Your task to perform on an android device: Open the stopwatch Image 0: 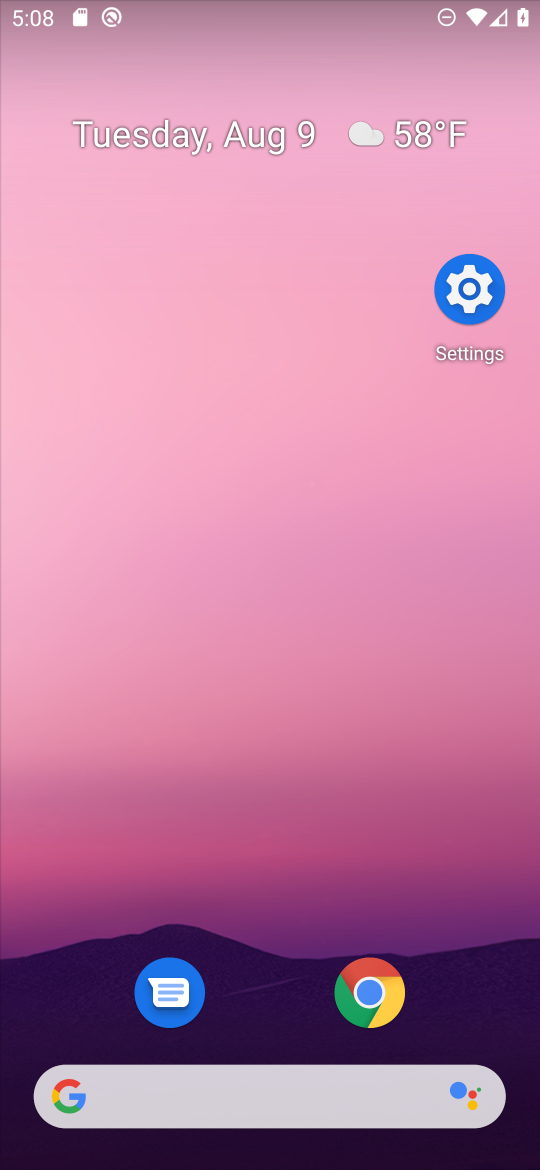
Step 0: drag from (323, 1104) to (347, 98)
Your task to perform on an android device: Open the stopwatch Image 1: 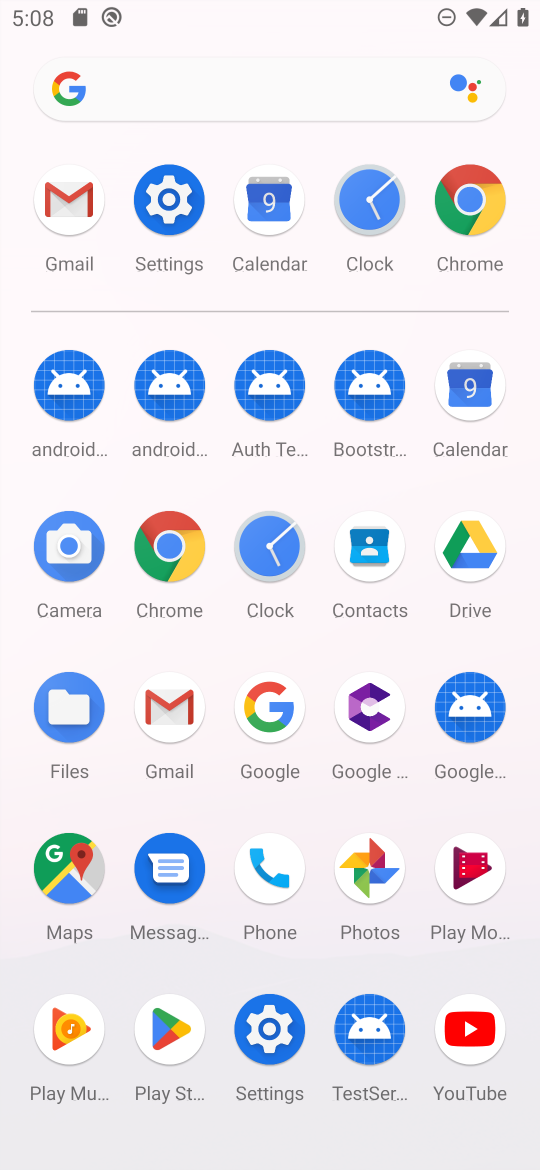
Step 1: click (251, 560)
Your task to perform on an android device: Open the stopwatch Image 2: 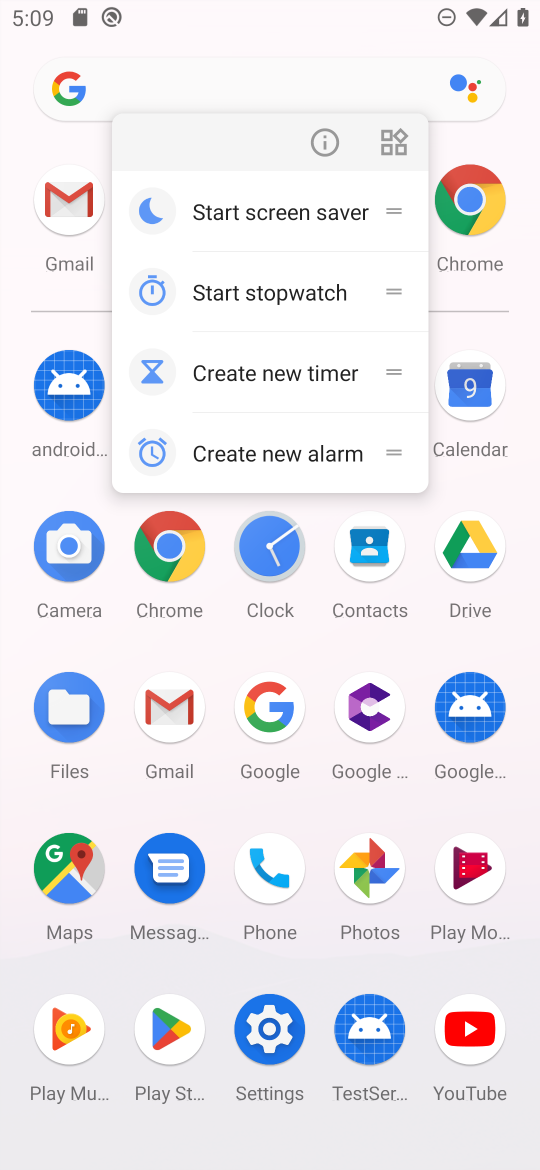
Step 2: click (264, 548)
Your task to perform on an android device: Open the stopwatch Image 3: 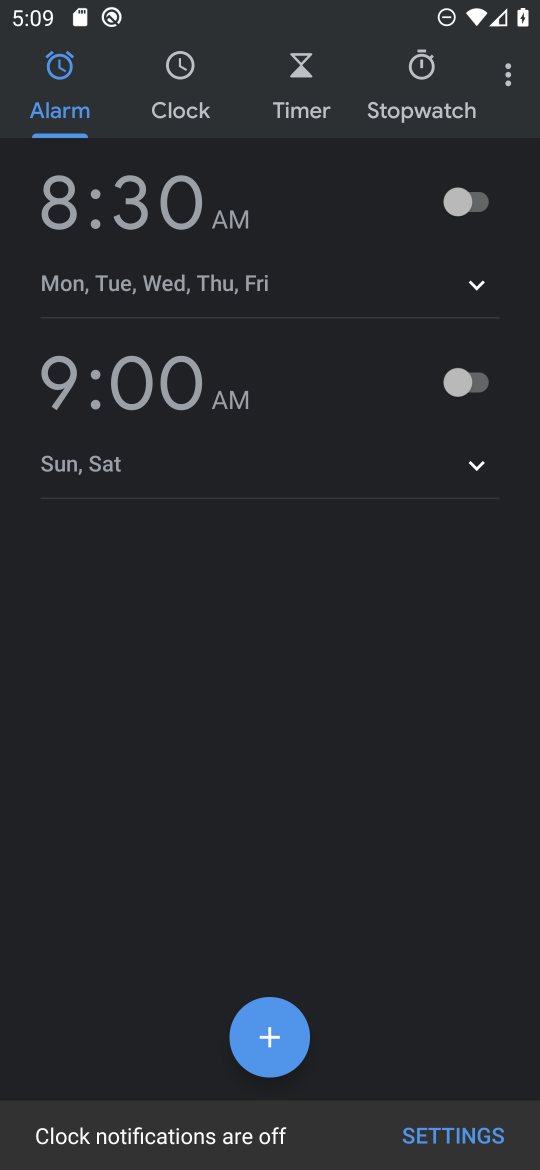
Step 3: click (264, 548)
Your task to perform on an android device: Open the stopwatch Image 4: 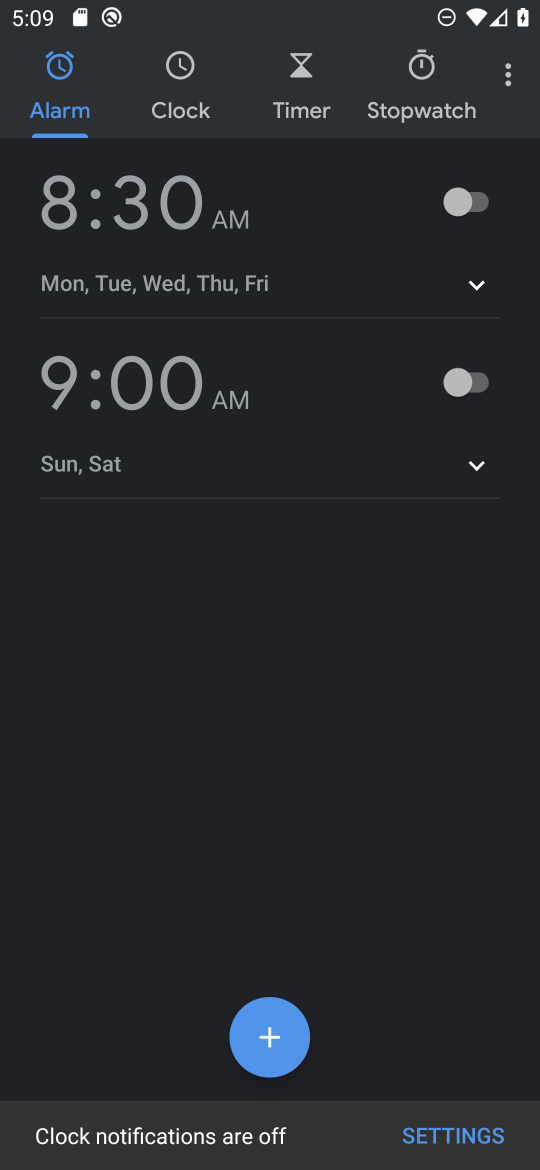
Step 4: click (264, 548)
Your task to perform on an android device: Open the stopwatch Image 5: 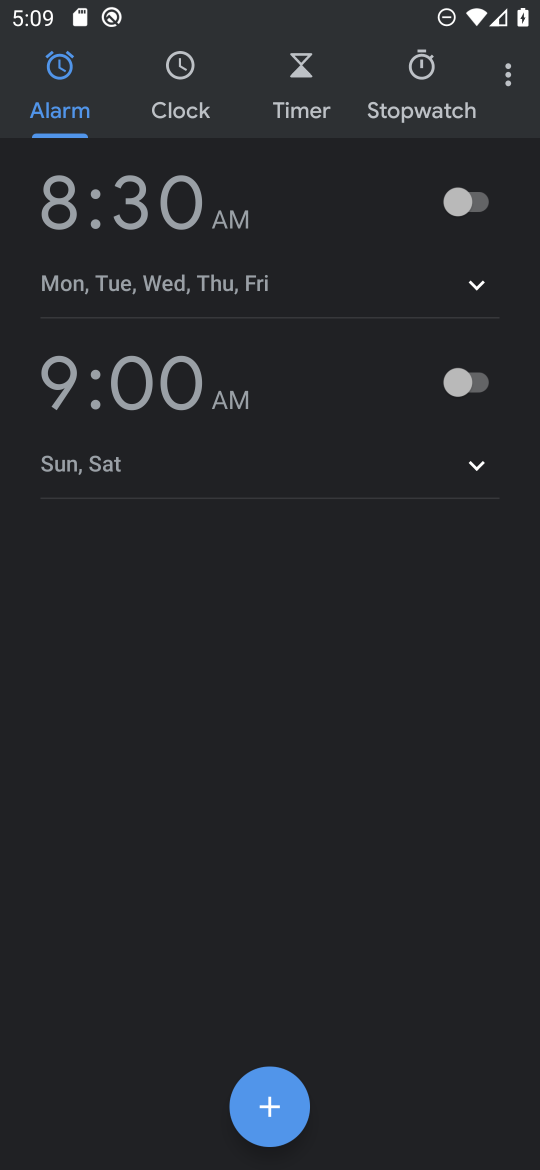
Step 5: click (433, 63)
Your task to perform on an android device: Open the stopwatch Image 6: 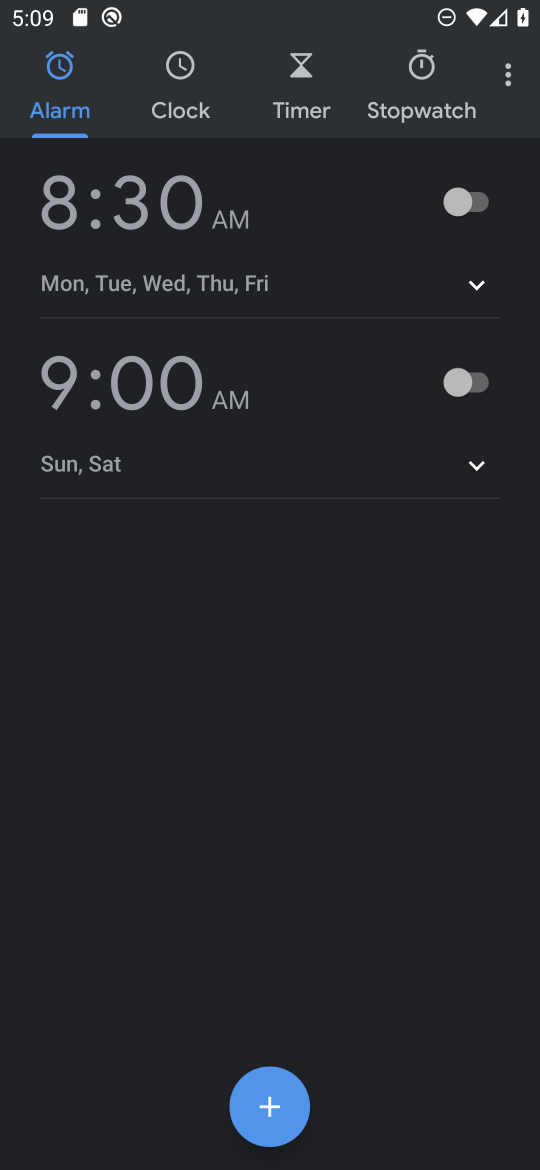
Step 6: task complete